Your task to perform on an android device: toggle wifi Image 0: 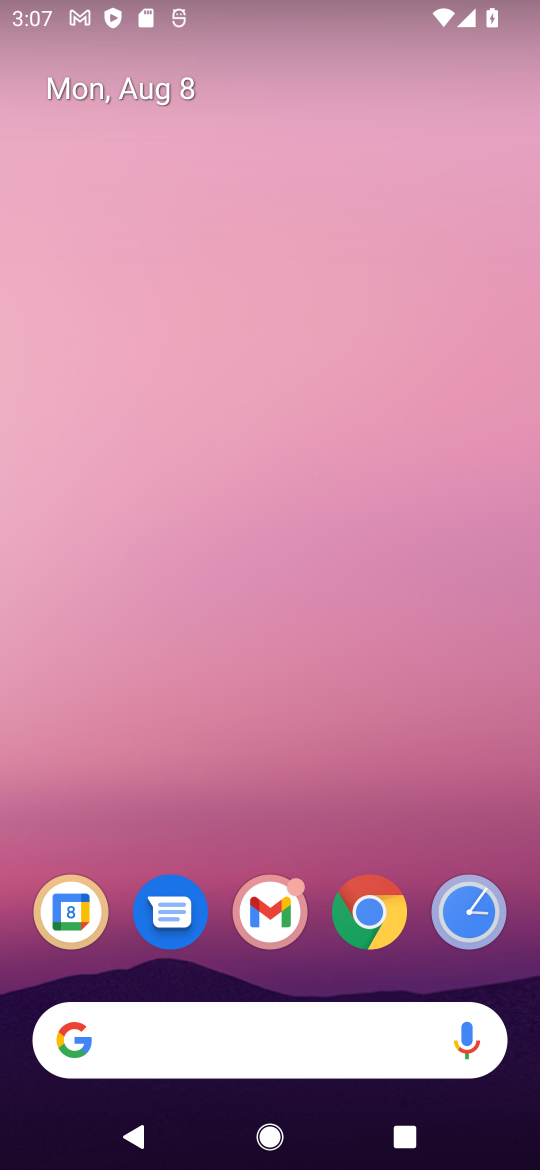
Step 0: drag from (293, 13) to (244, 902)
Your task to perform on an android device: toggle wifi Image 1: 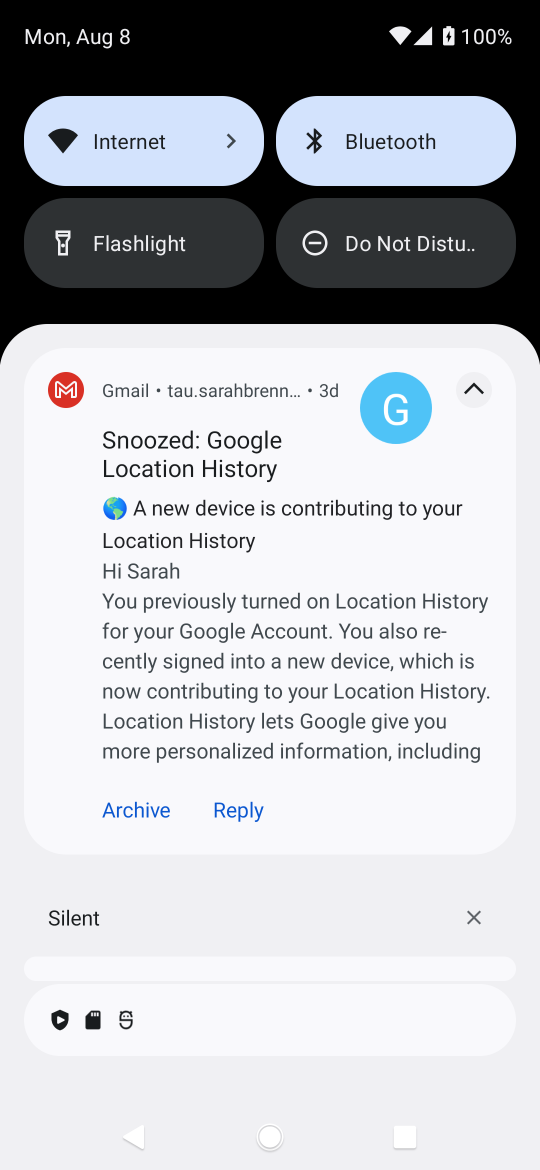
Step 1: click (140, 142)
Your task to perform on an android device: toggle wifi Image 2: 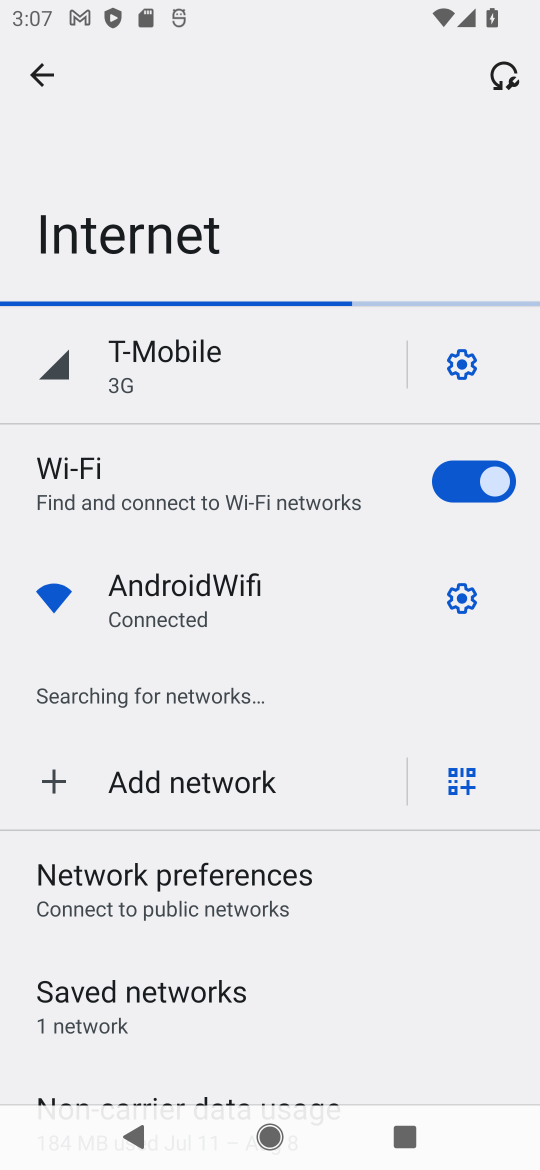
Step 2: click (140, 142)
Your task to perform on an android device: toggle wifi Image 3: 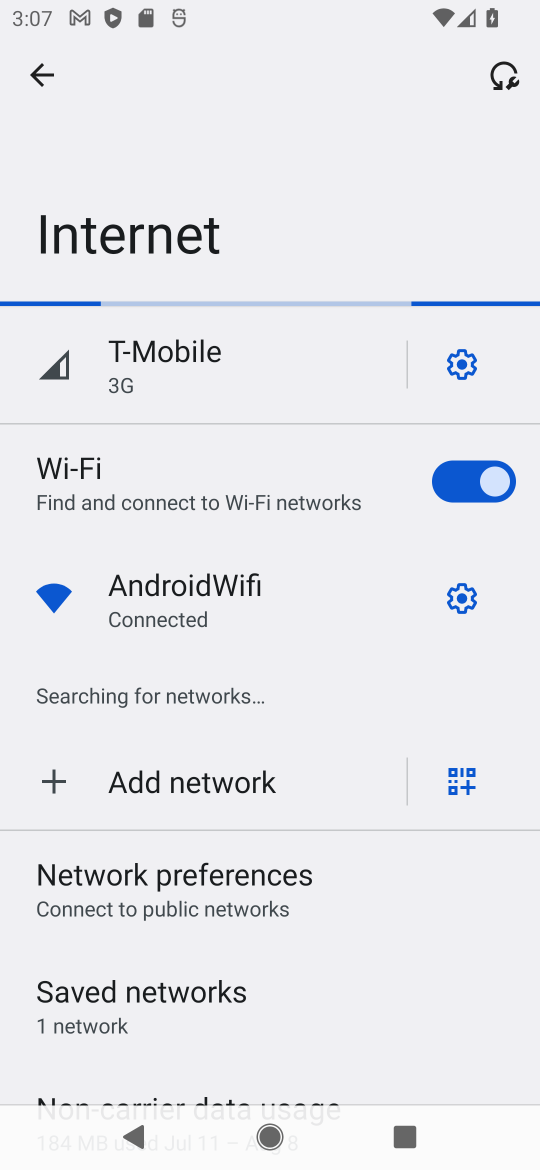
Step 3: click (481, 508)
Your task to perform on an android device: toggle wifi Image 4: 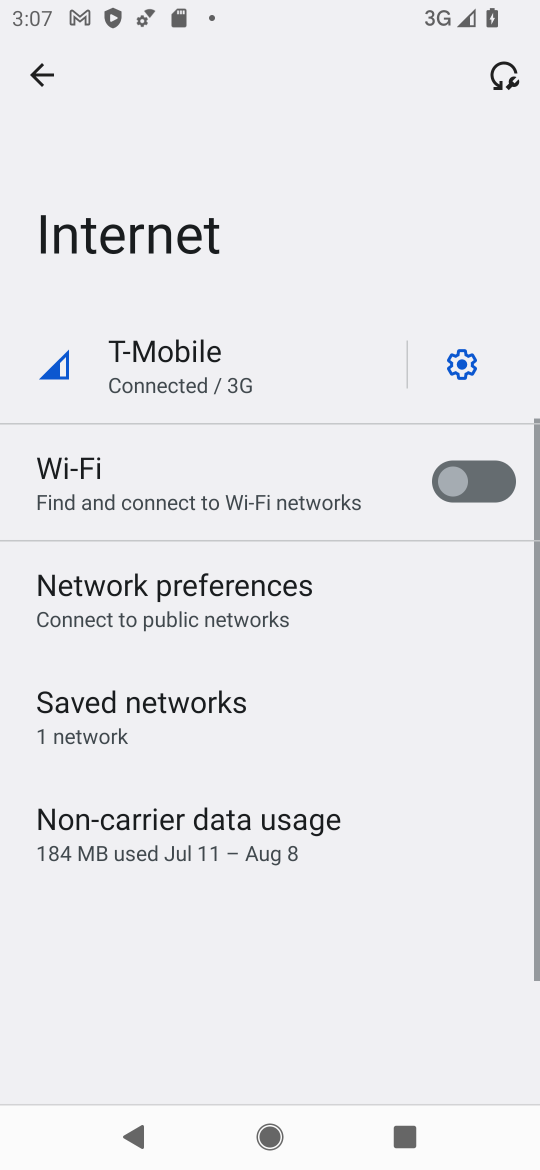
Step 4: task complete